Your task to perform on an android device: open app "Calculator" Image 0: 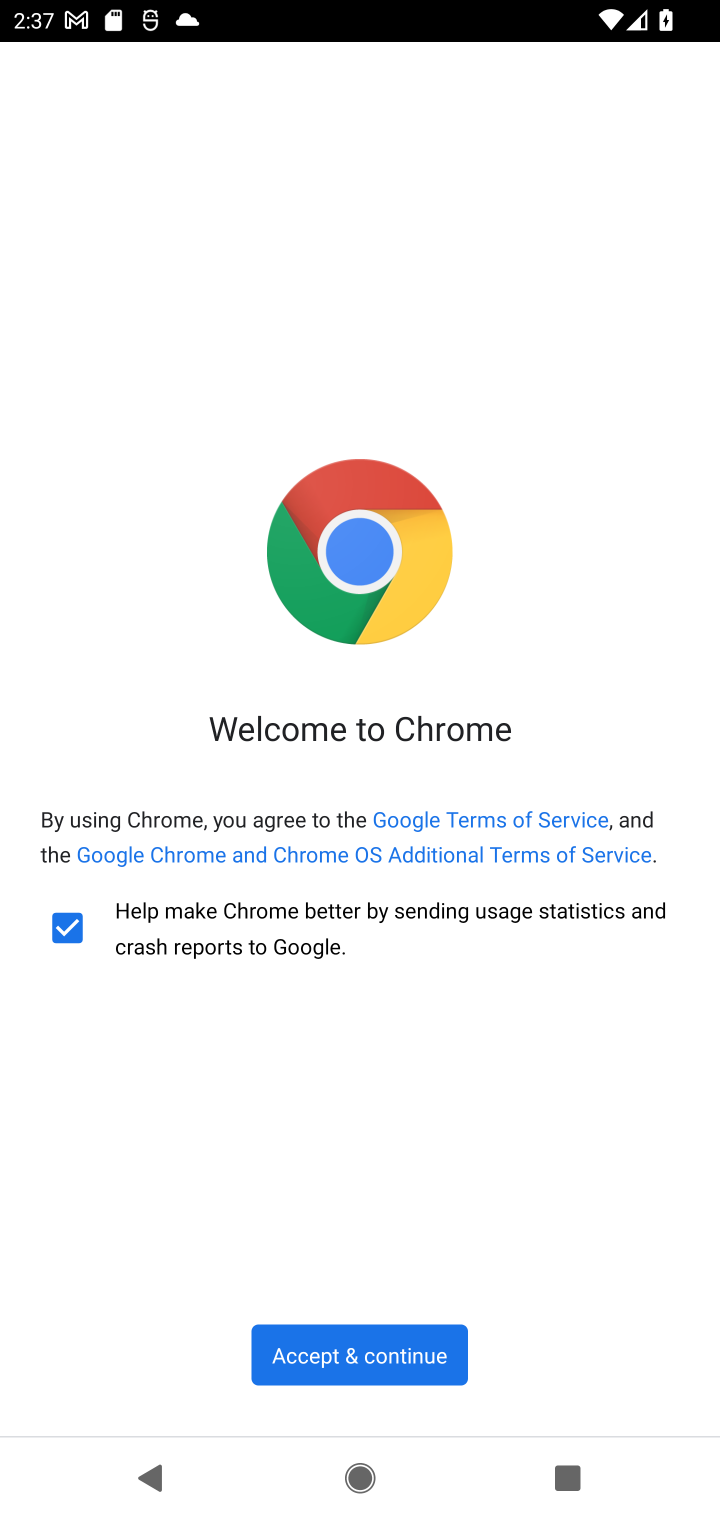
Step 0: press home button
Your task to perform on an android device: open app "Calculator" Image 1: 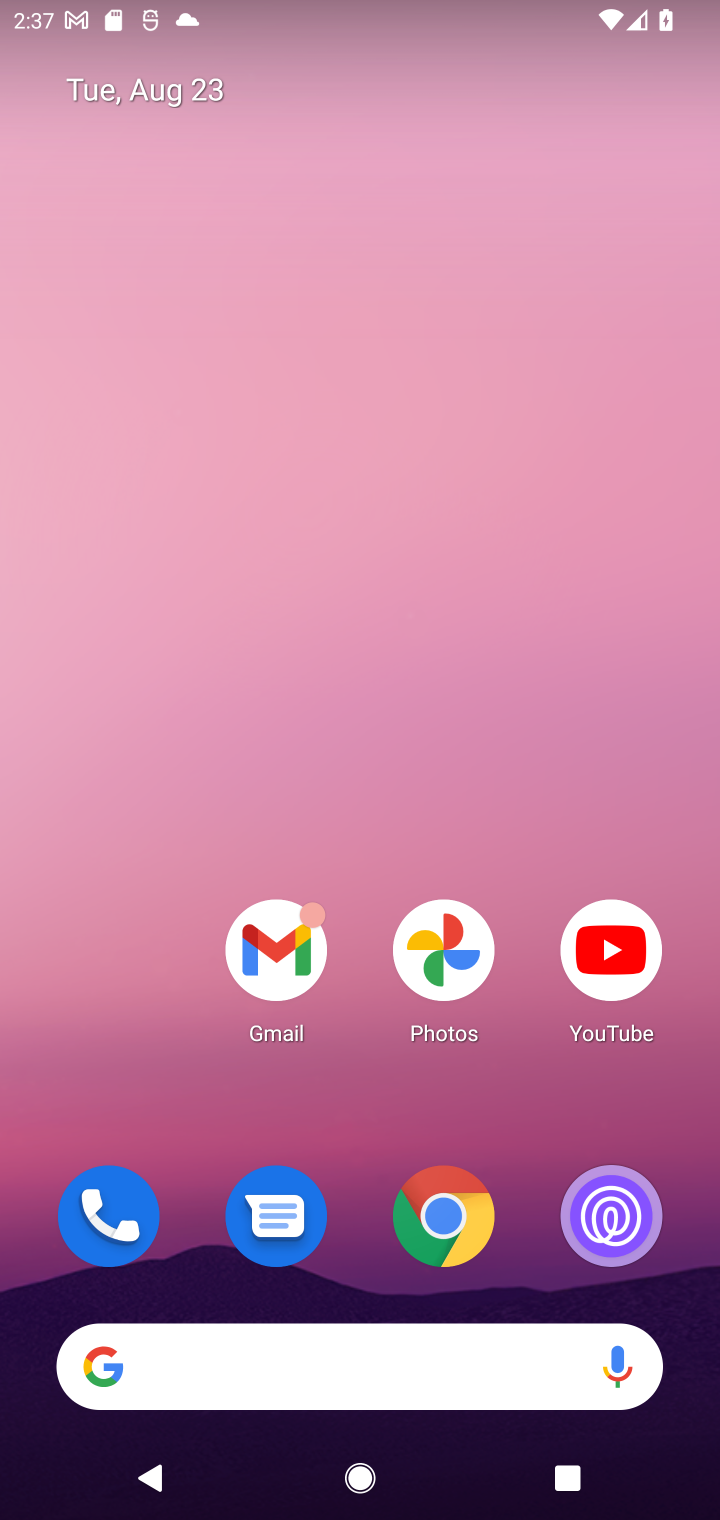
Step 1: drag from (373, 1289) to (511, 117)
Your task to perform on an android device: open app "Calculator" Image 2: 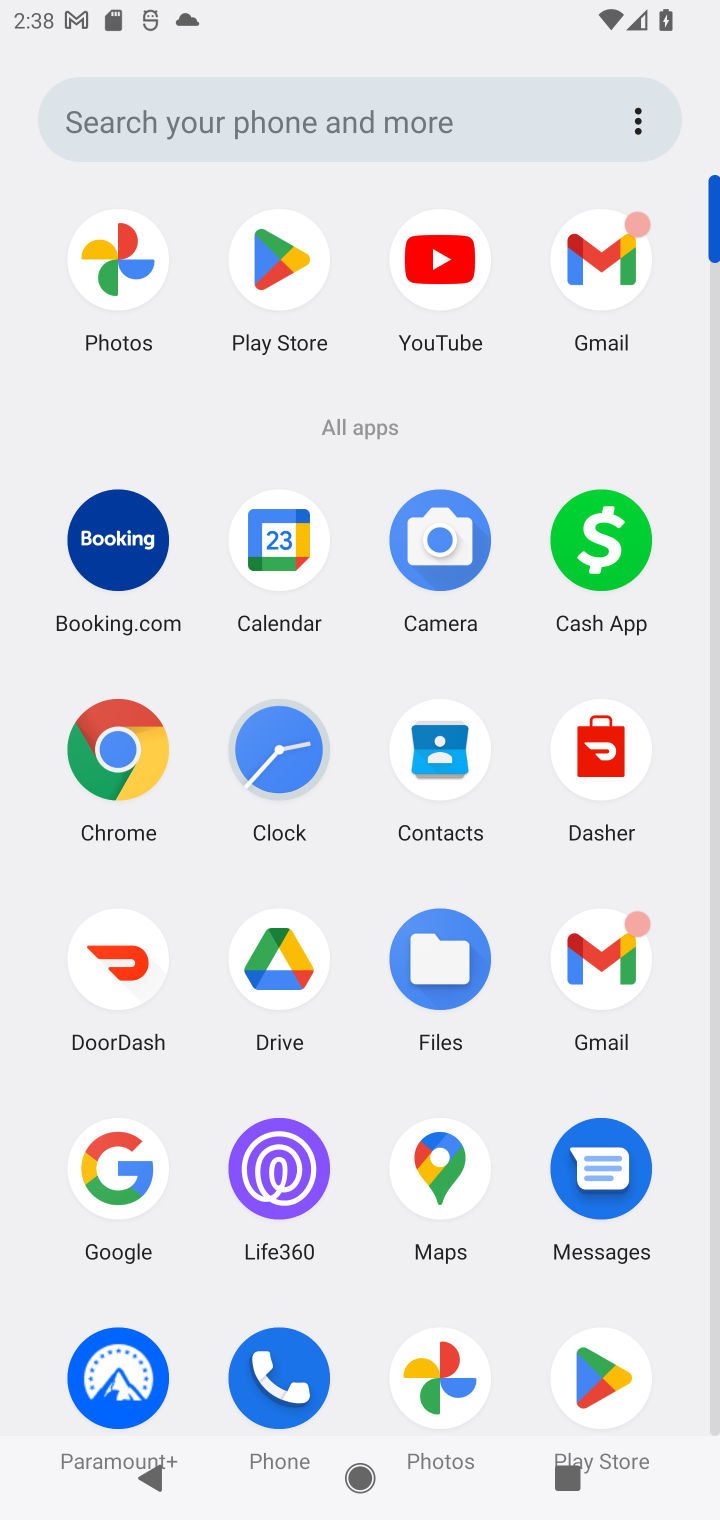
Step 2: click (296, 242)
Your task to perform on an android device: open app "Calculator" Image 3: 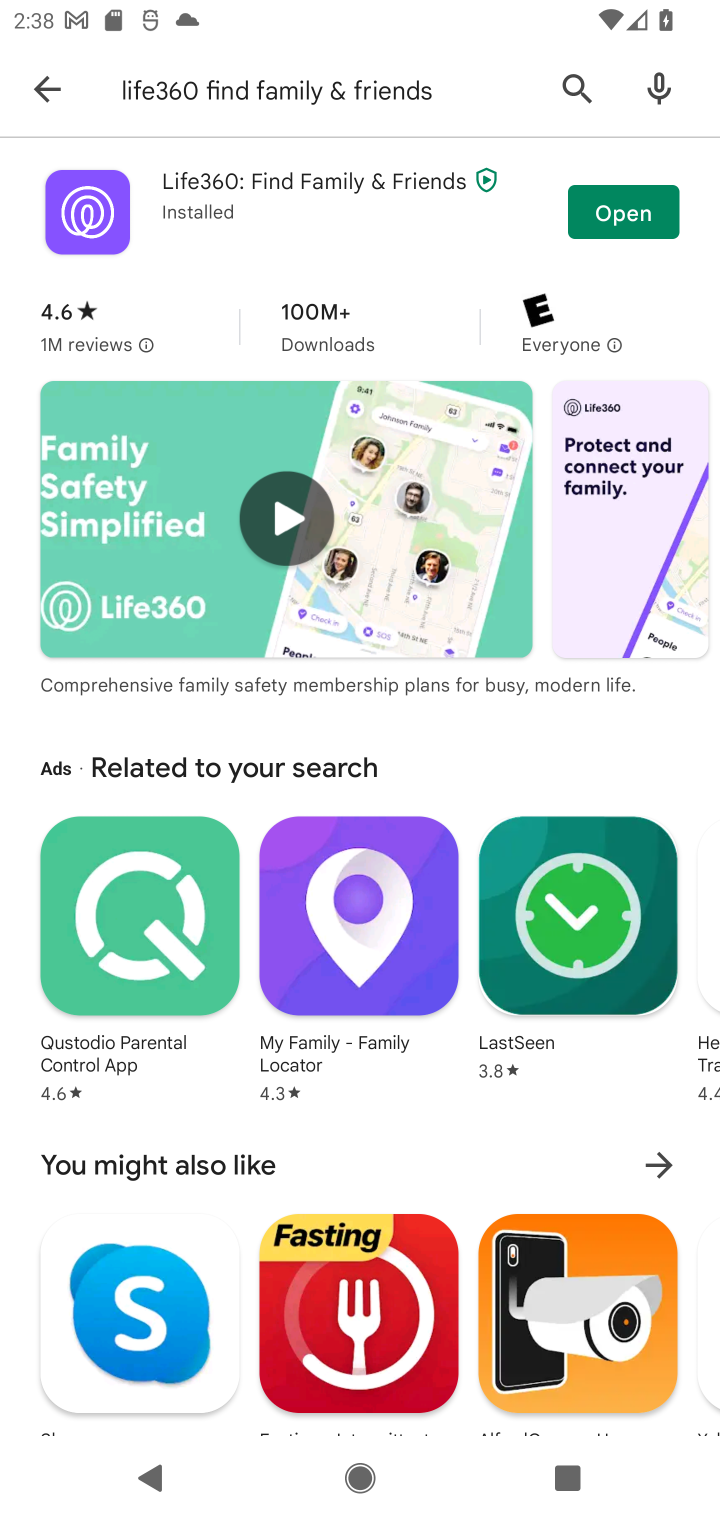
Step 3: click (72, 86)
Your task to perform on an android device: open app "Calculator" Image 4: 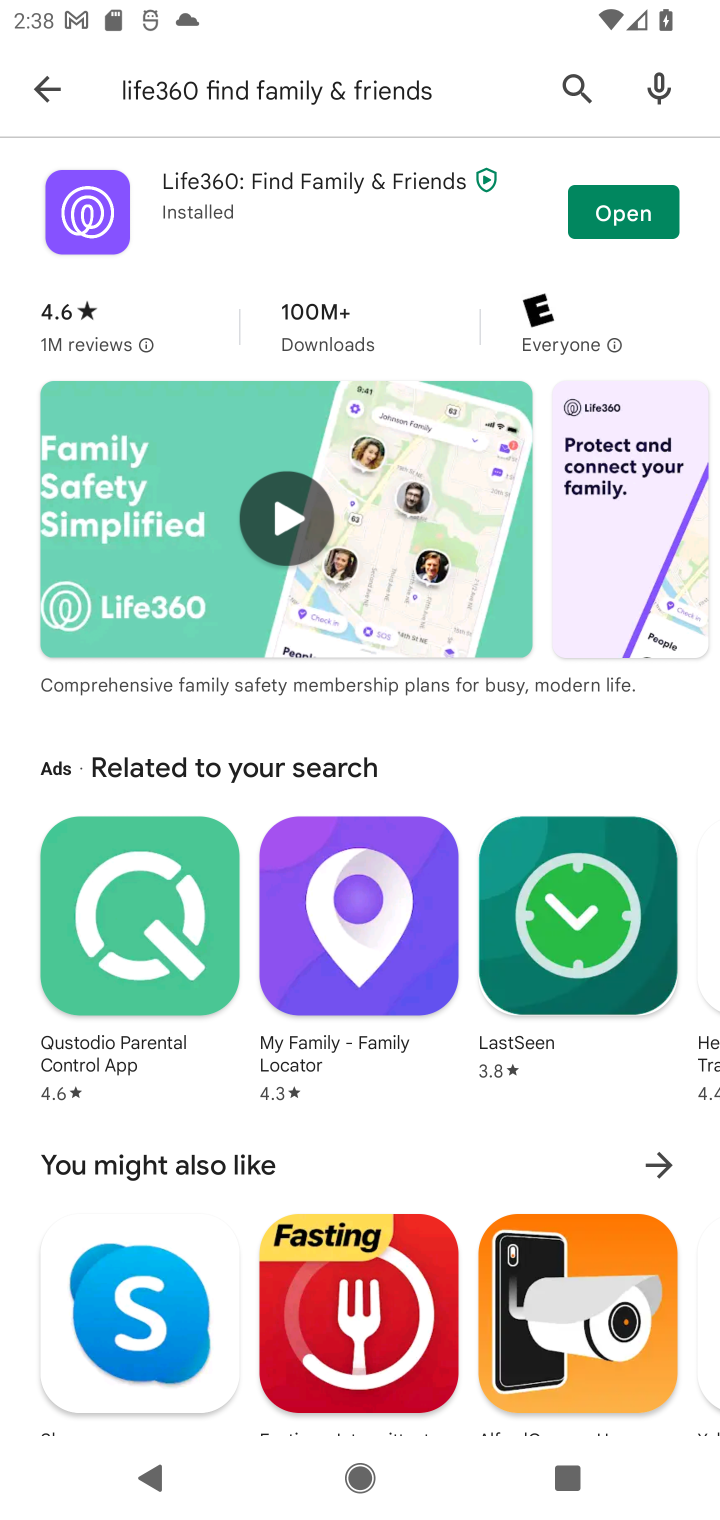
Step 4: click (560, 78)
Your task to perform on an android device: open app "Calculator" Image 5: 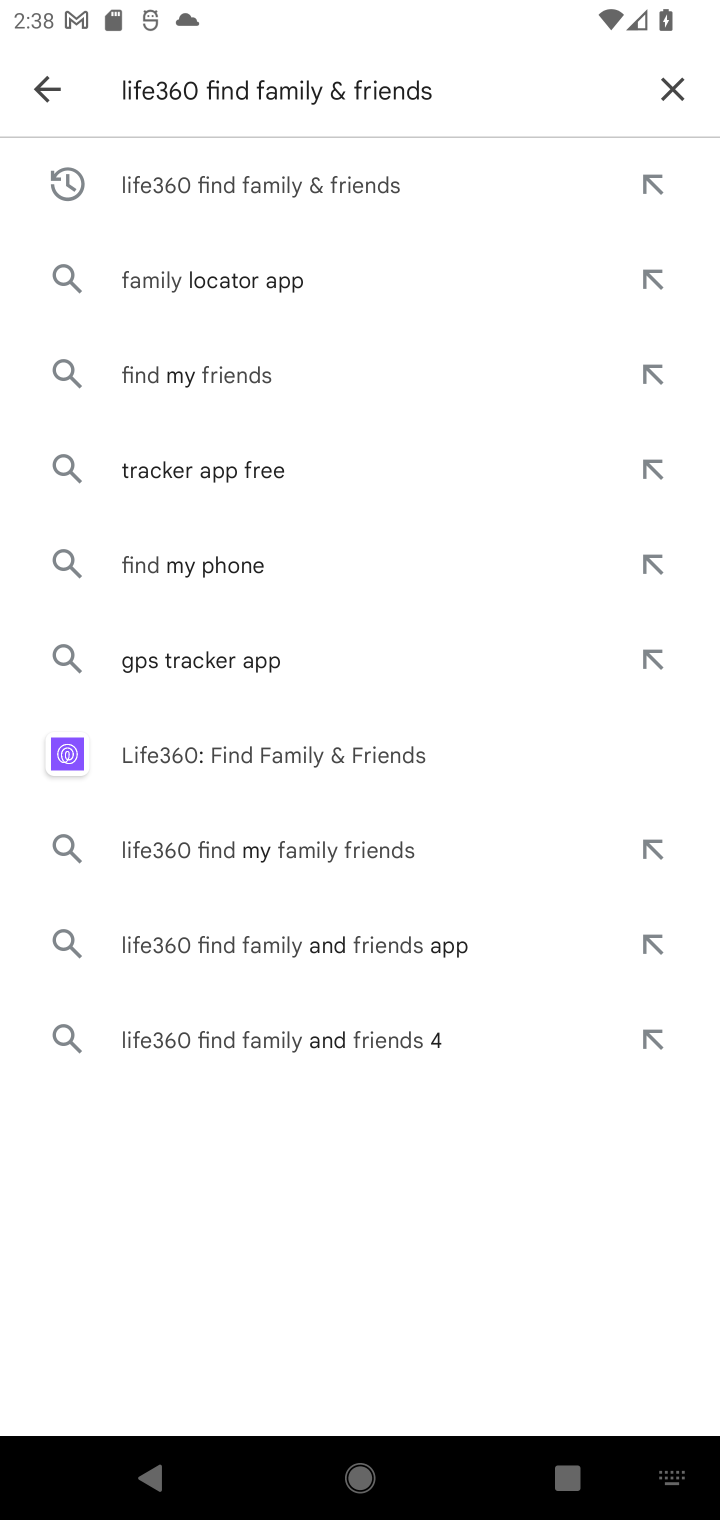
Step 5: click (667, 81)
Your task to perform on an android device: open app "Calculator" Image 6: 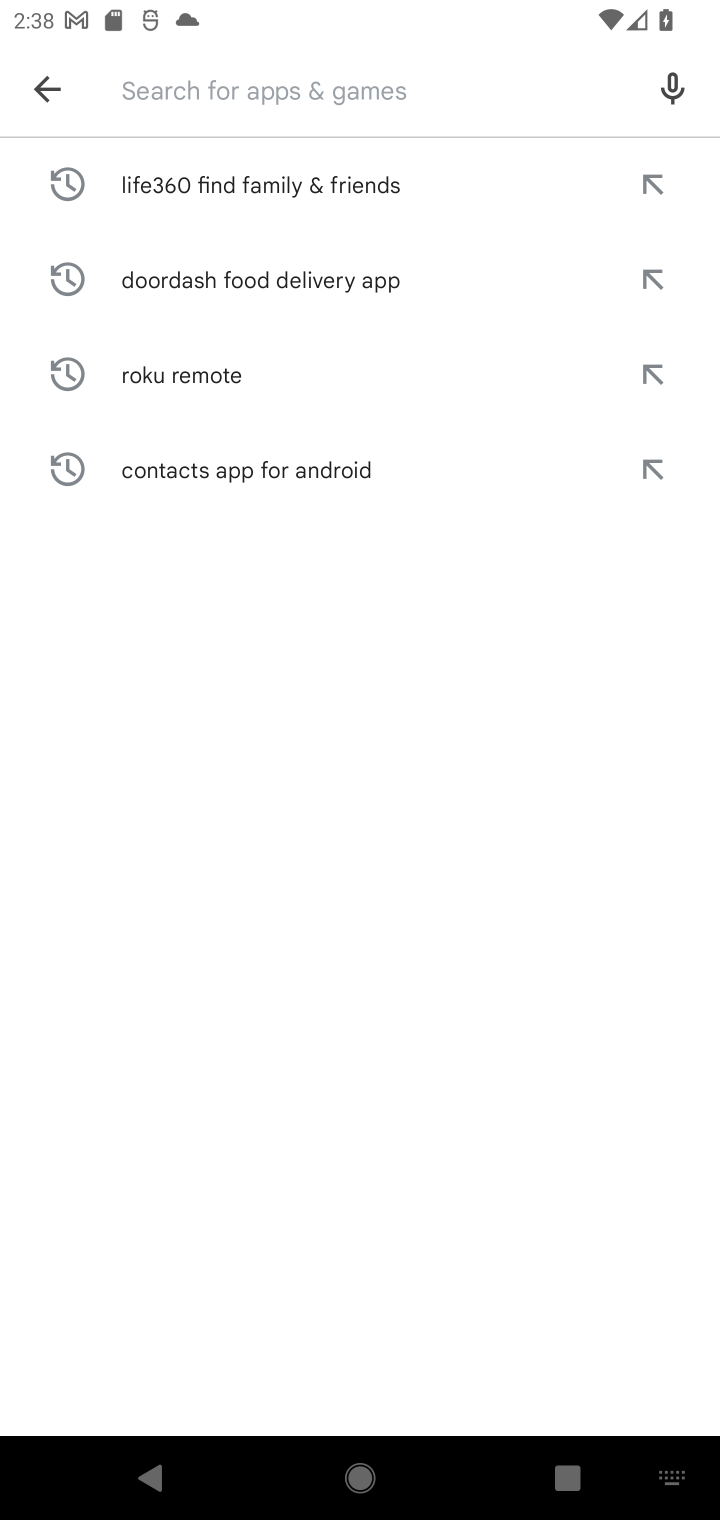
Step 6: click (314, 114)
Your task to perform on an android device: open app "Calculator" Image 7: 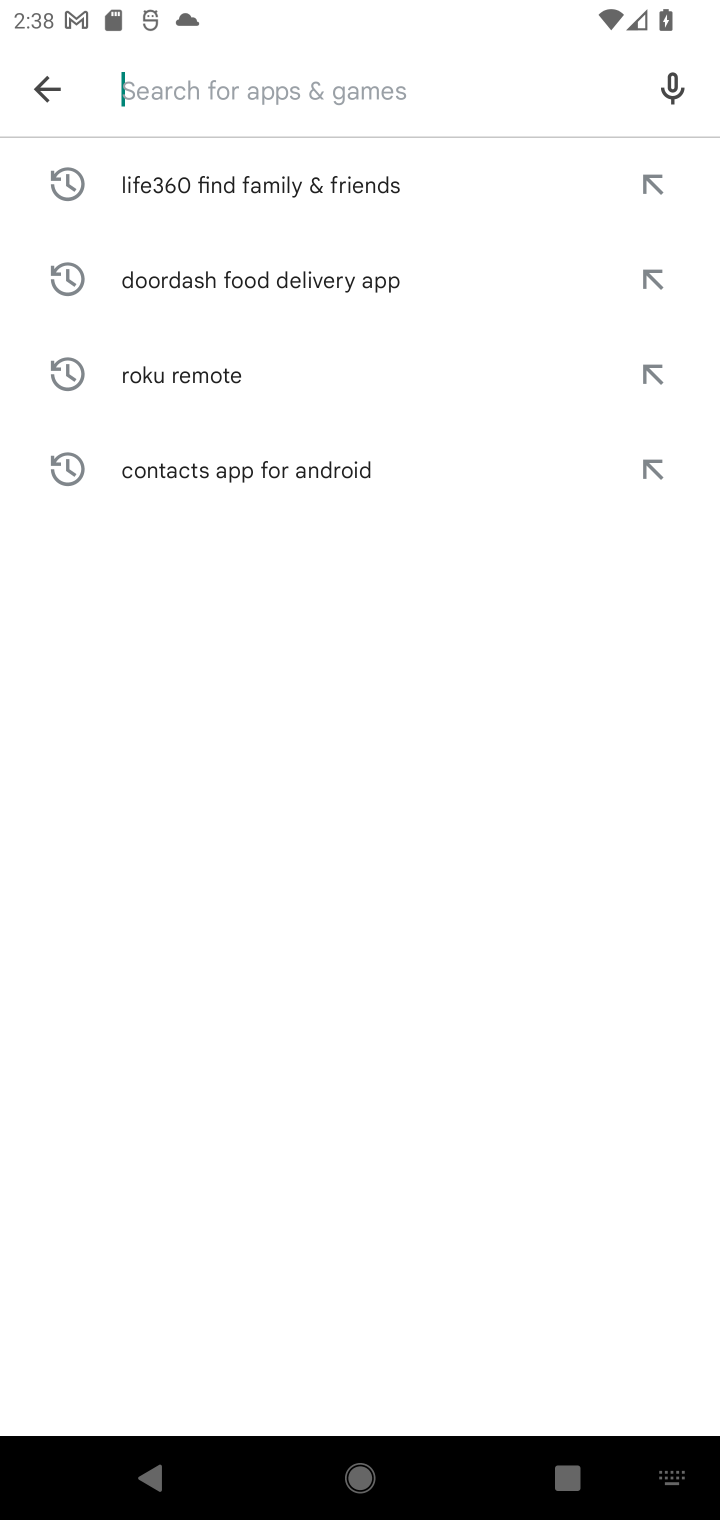
Step 7: click (346, 44)
Your task to perform on an android device: open app "Calculator" Image 8: 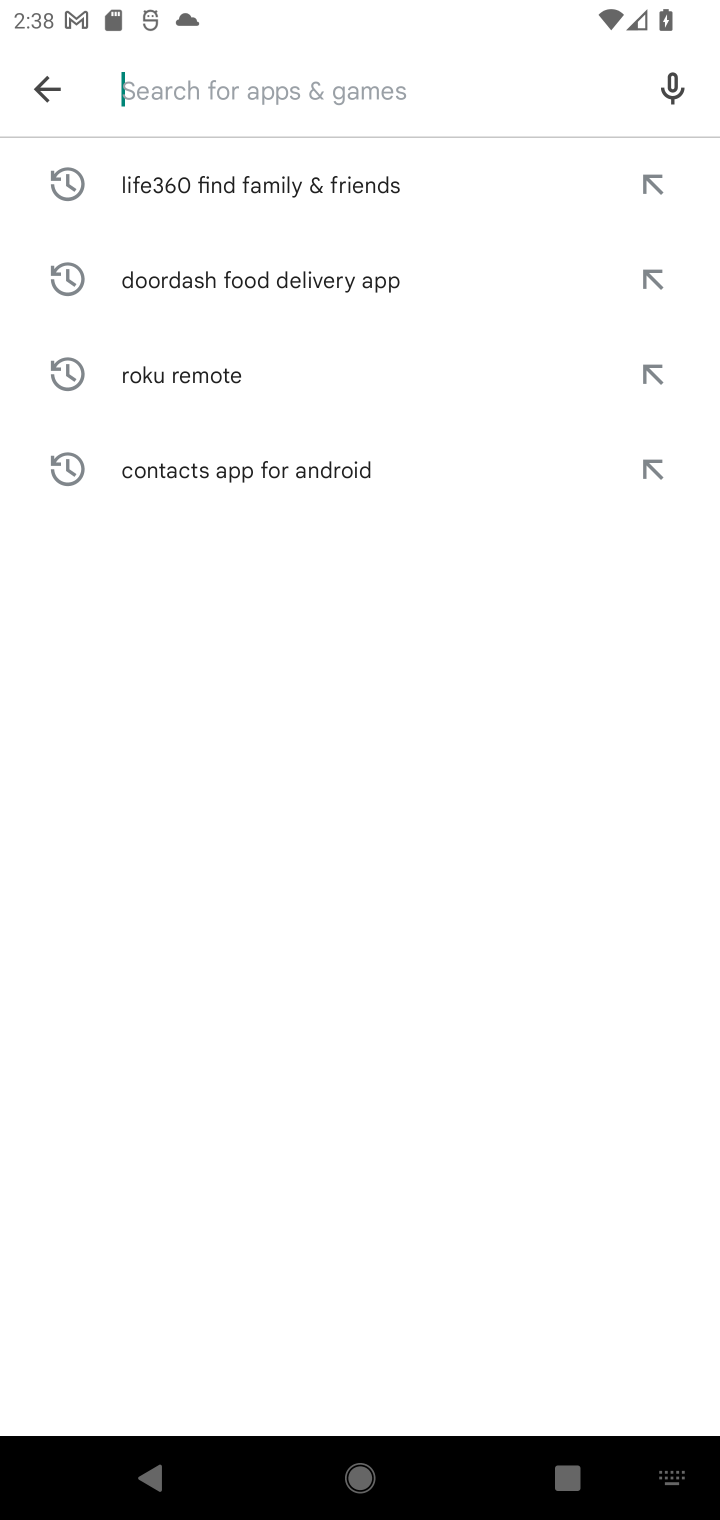
Step 8: click (346, 95)
Your task to perform on an android device: open app "Calculator" Image 9: 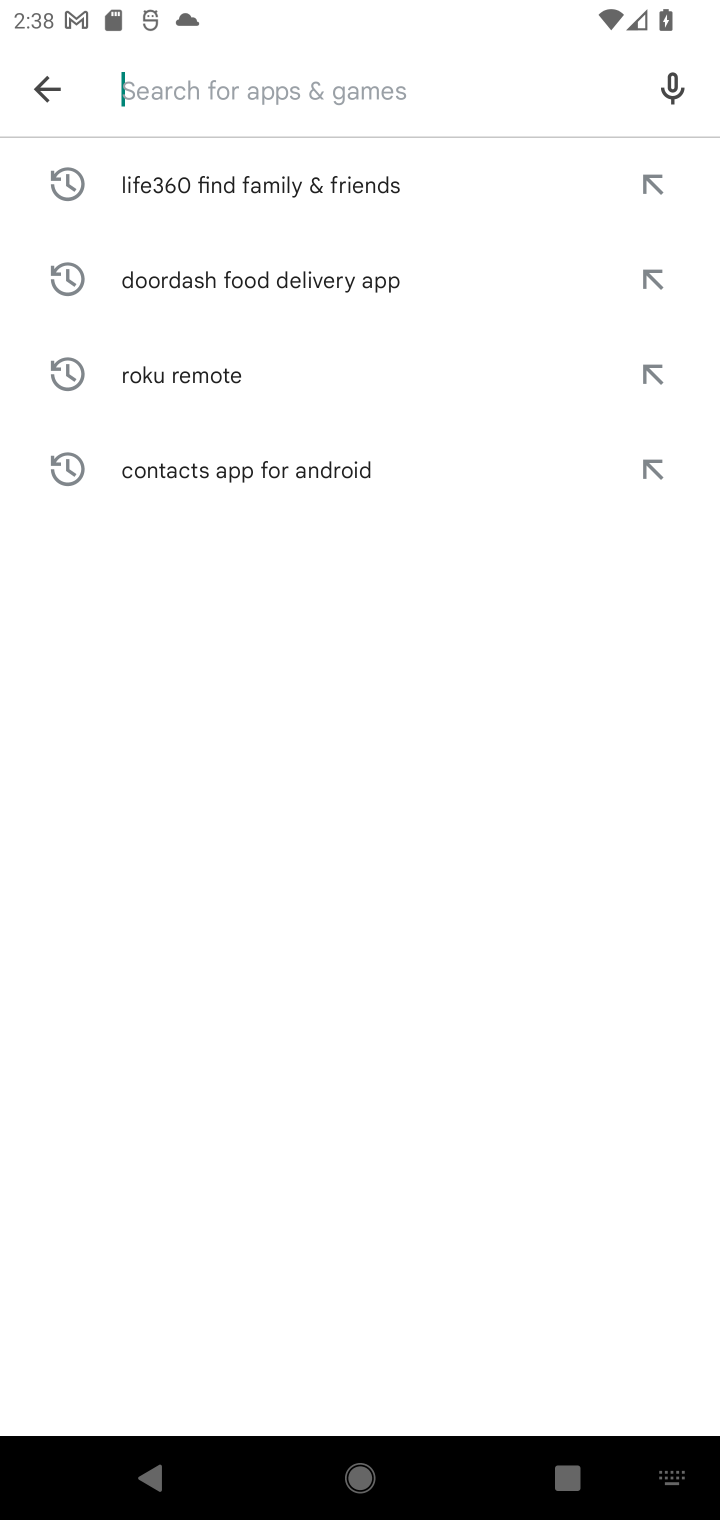
Step 9: type "Calculator "
Your task to perform on an android device: open app "Calculator" Image 10: 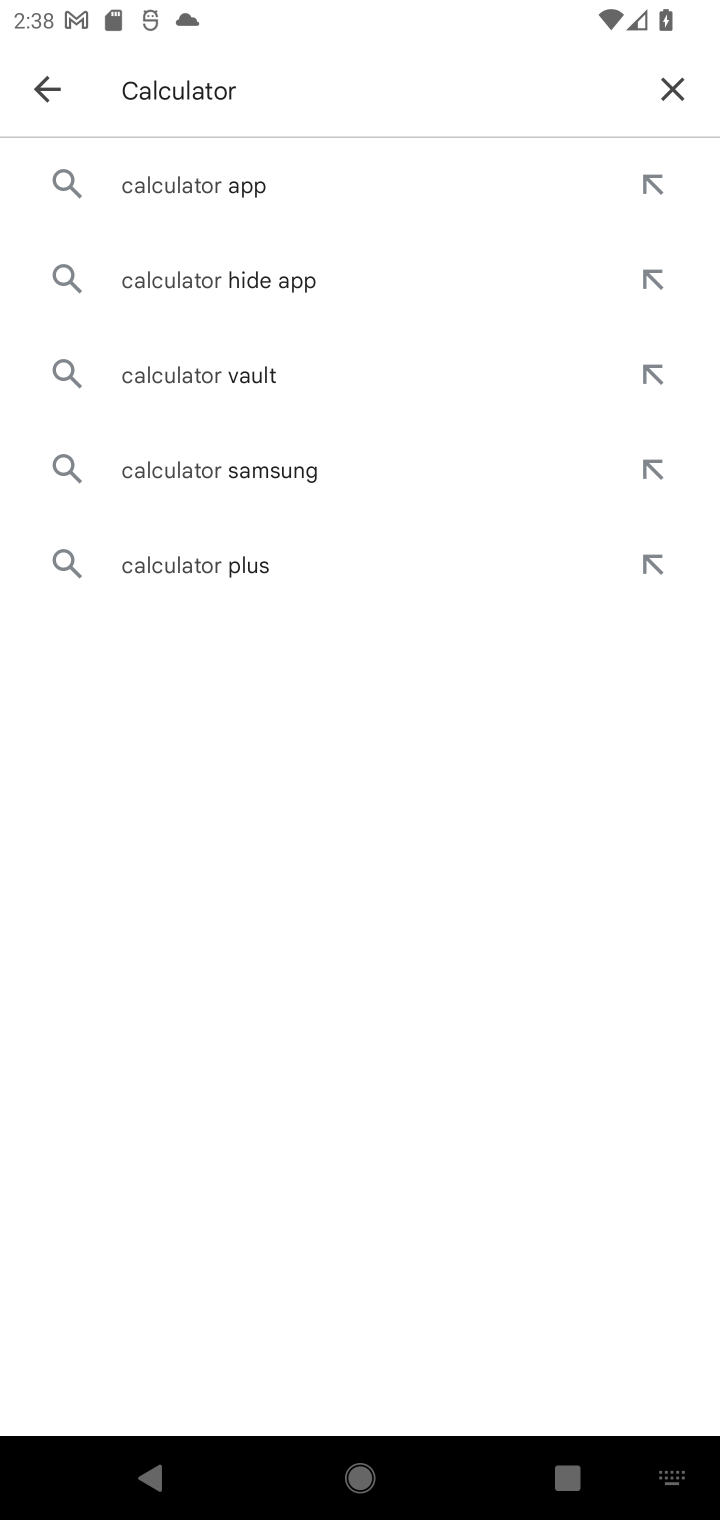
Step 10: click (286, 214)
Your task to perform on an android device: open app "Calculator" Image 11: 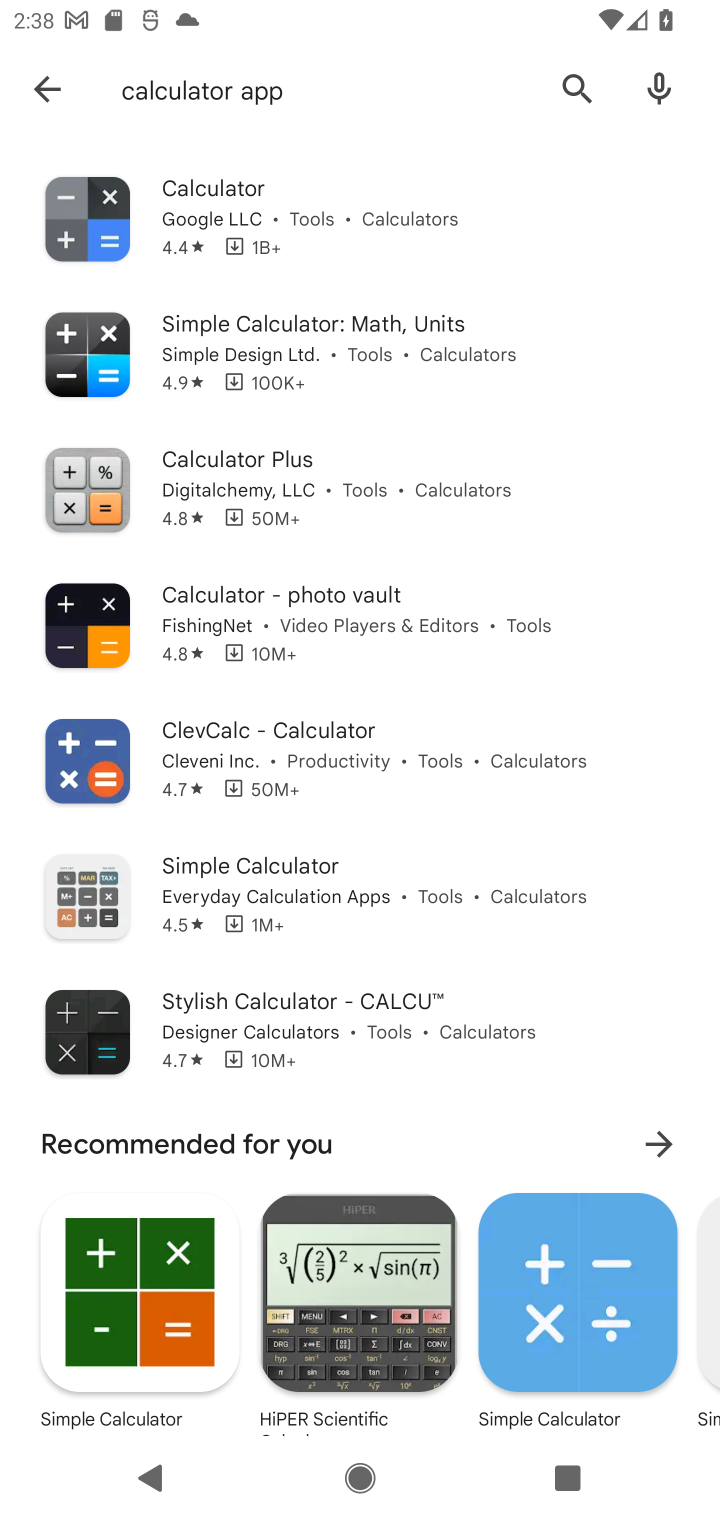
Step 11: click (276, 214)
Your task to perform on an android device: open app "Calculator" Image 12: 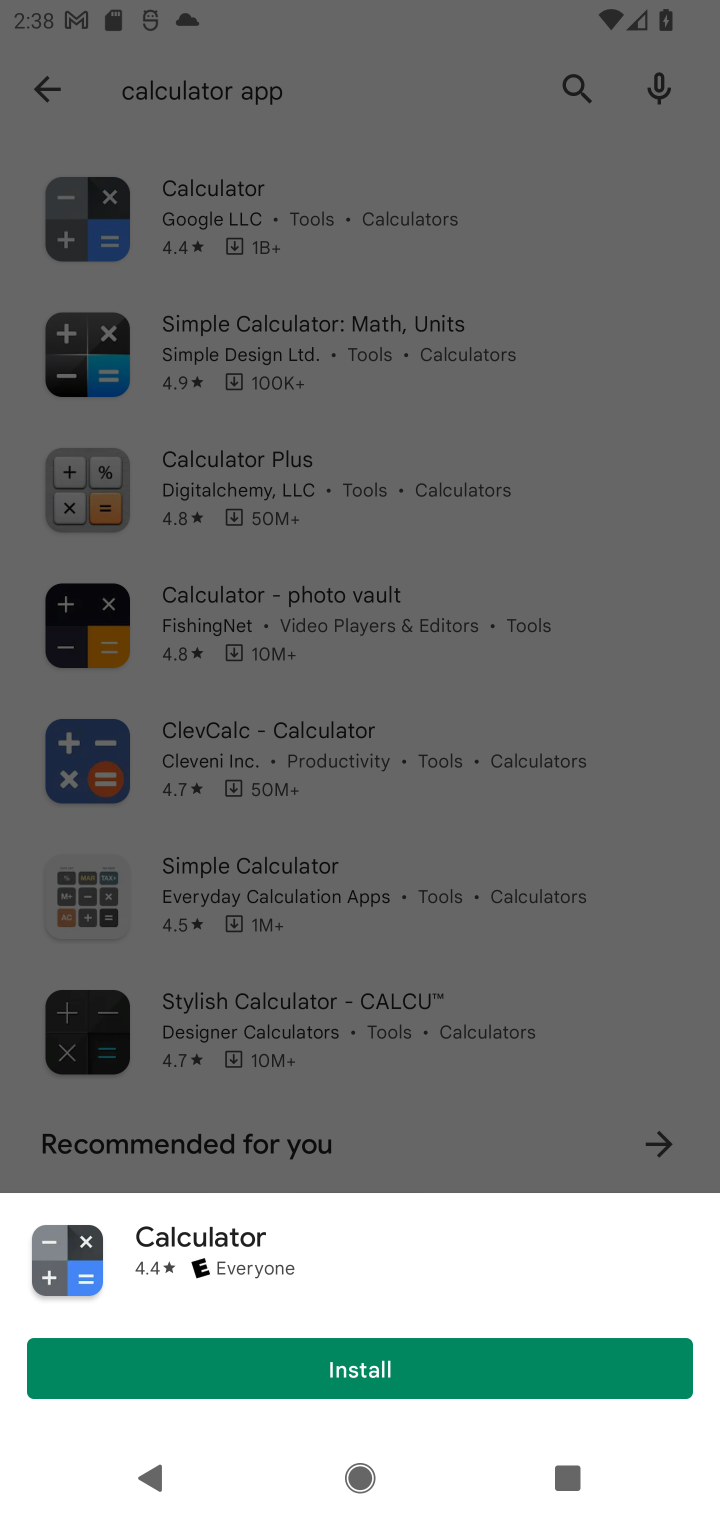
Step 12: click (318, 1346)
Your task to perform on an android device: open app "Calculator" Image 13: 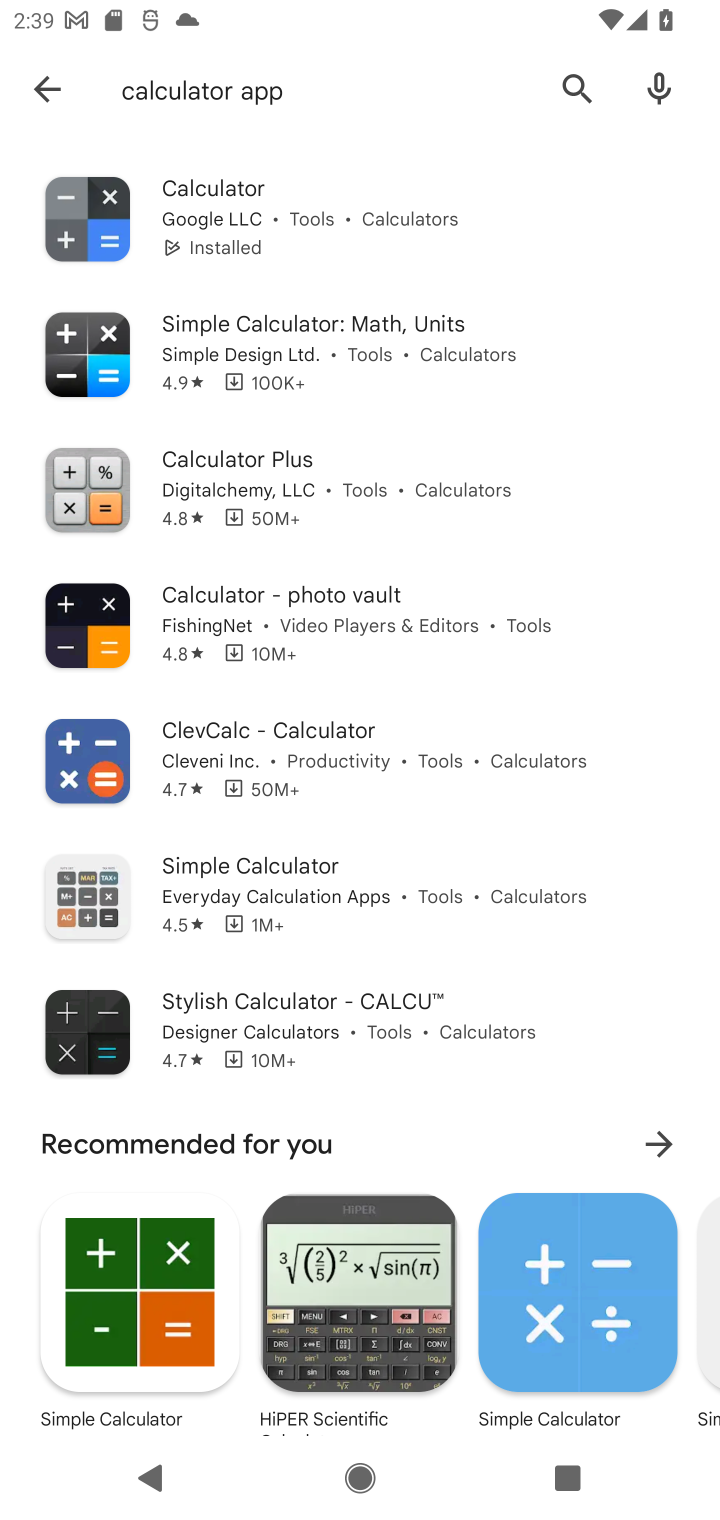
Step 13: click (193, 216)
Your task to perform on an android device: open app "Calculator" Image 14: 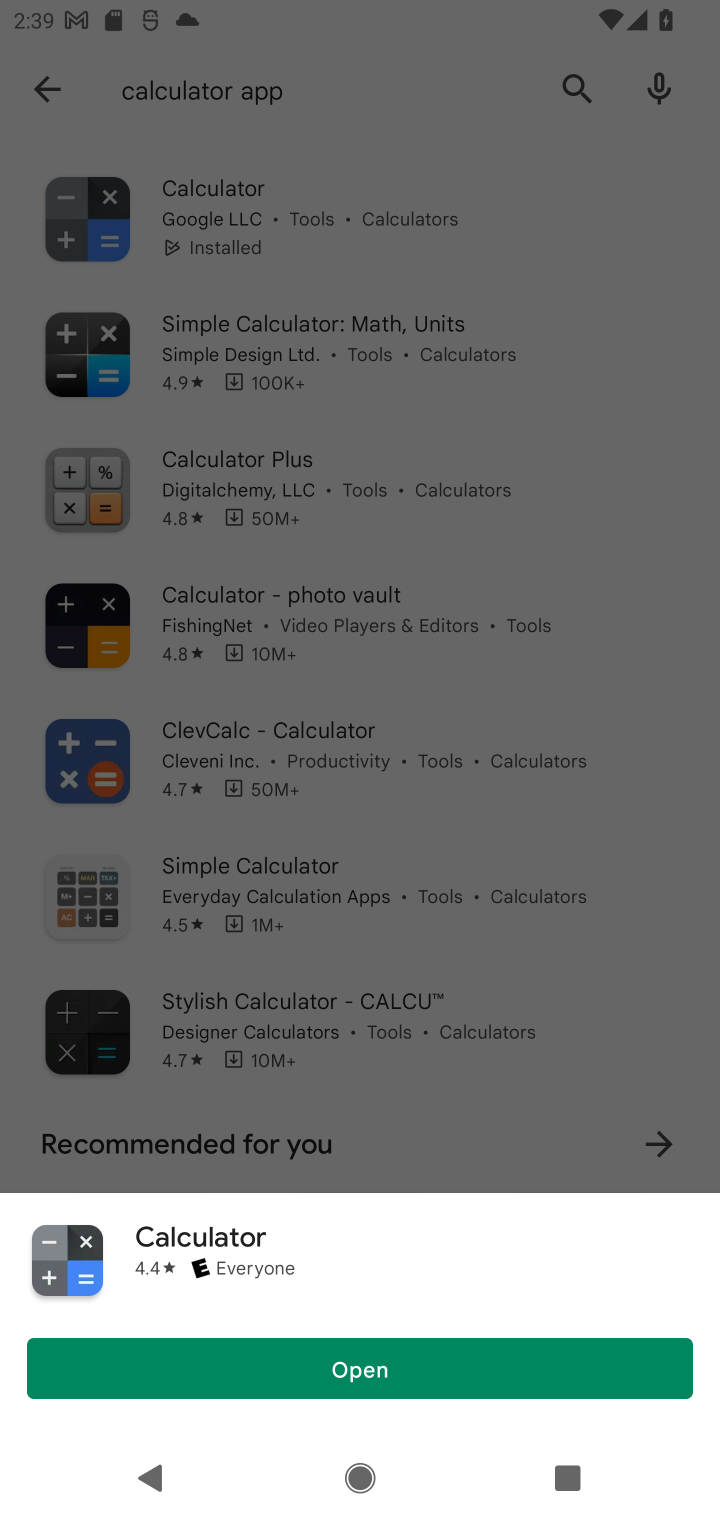
Step 14: click (367, 1350)
Your task to perform on an android device: open app "Calculator" Image 15: 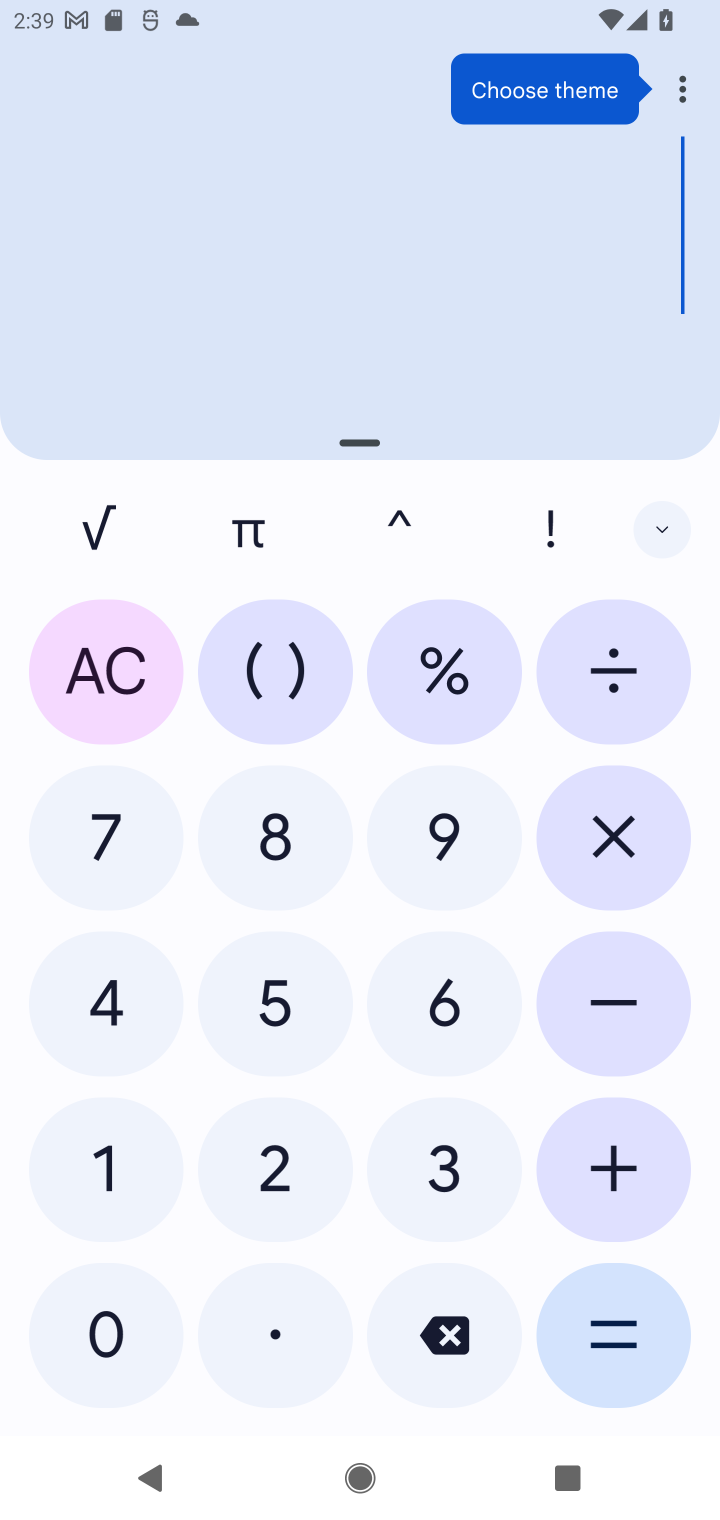
Step 15: task complete